Your task to perform on an android device: Check the news Image 0: 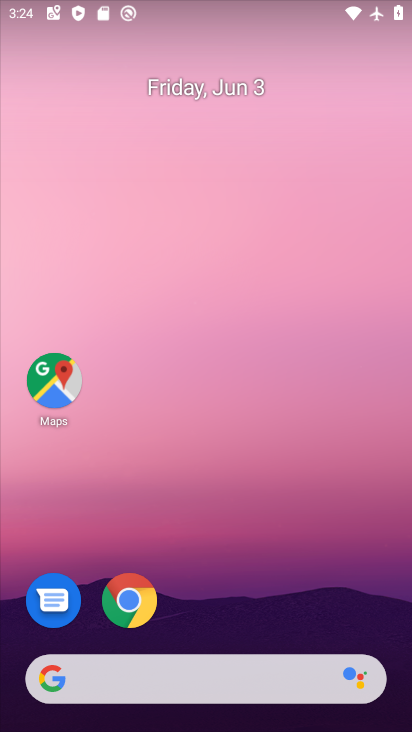
Step 0: click (381, 273)
Your task to perform on an android device: Check the news Image 1: 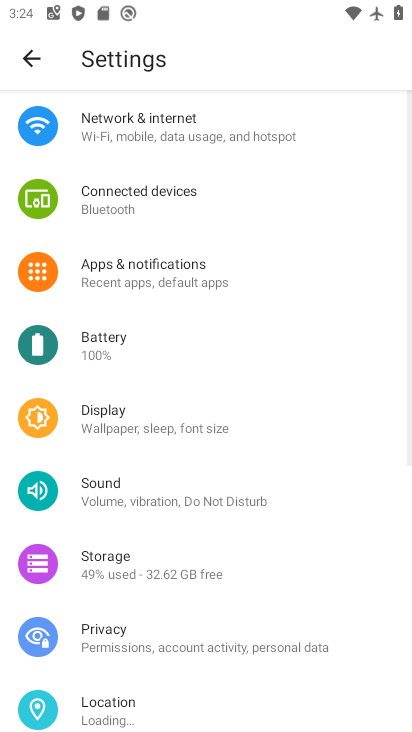
Step 1: press home button
Your task to perform on an android device: Check the news Image 2: 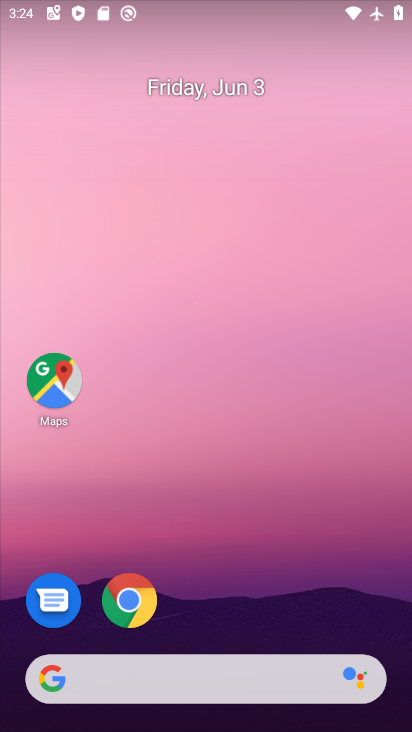
Step 2: click (264, 674)
Your task to perform on an android device: Check the news Image 3: 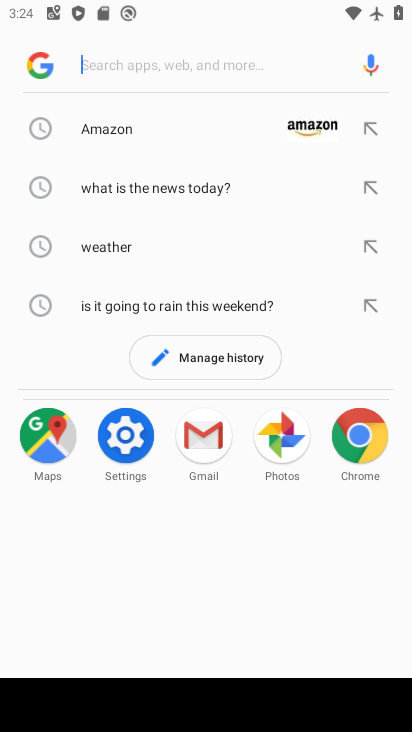
Step 3: type "news"
Your task to perform on an android device: Check the news Image 4: 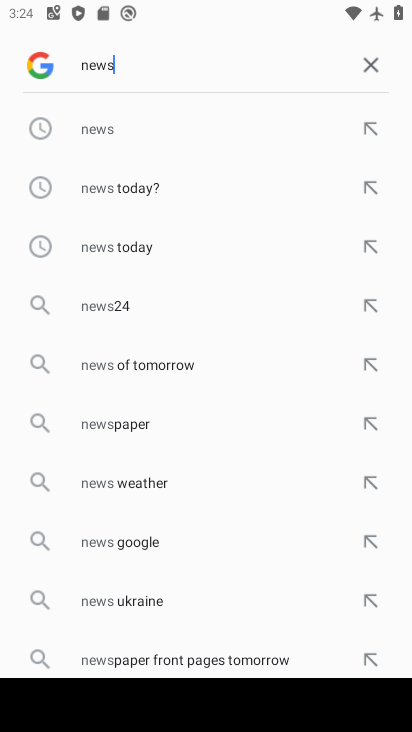
Step 4: click (131, 140)
Your task to perform on an android device: Check the news Image 5: 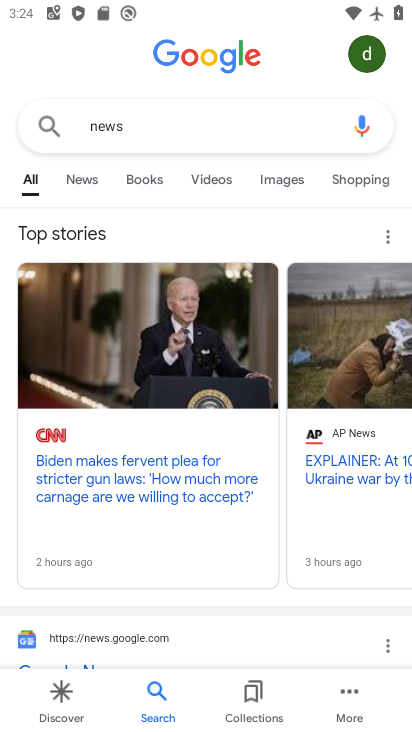
Step 5: task complete